Your task to perform on an android device: turn notification dots off Image 0: 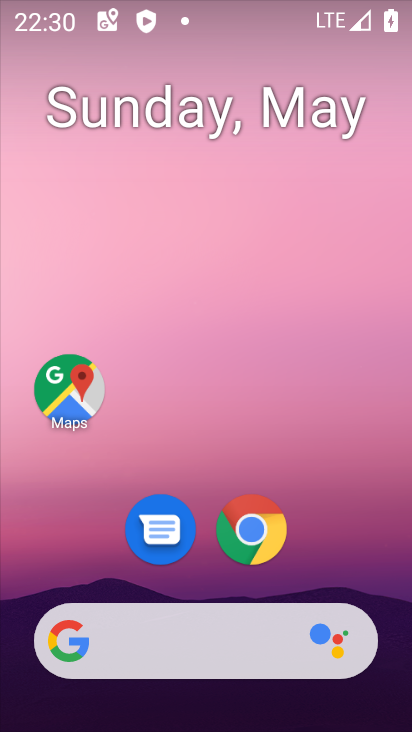
Step 0: click (339, 578)
Your task to perform on an android device: turn notification dots off Image 1: 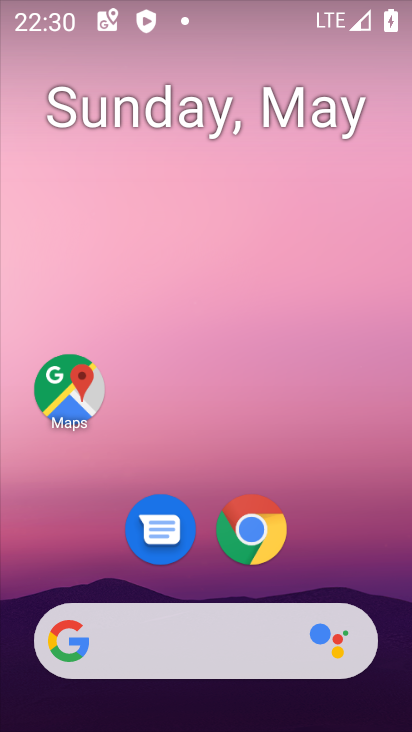
Step 1: drag from (339, 578) to (295, 164)
Your task to perform on an android device: turn notification dots off Image 2: 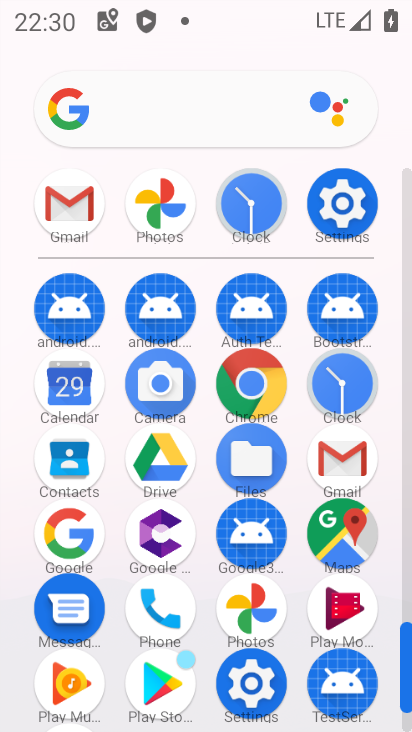
Step 2: click (336, 233)
Your task to perform on an android device: turn notification dots off Image 3: 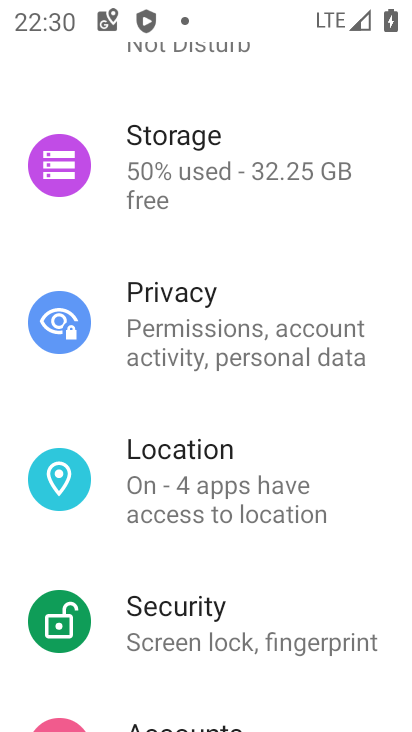
Step 3: drag from (209, 257) to (314, 726)
Your task to perform on an android device: turn notification dots off Image 4: 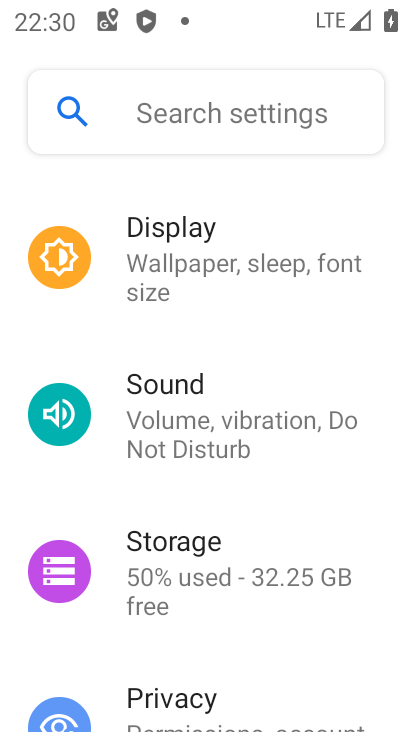
Step 4: drag from (219, 360) to (392, 652)
Your task to perform on an android device: turn notification dots off Image 5: 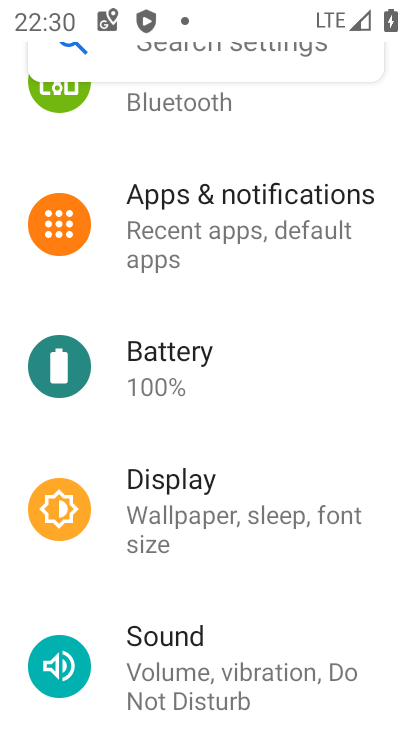
Step 5: click (261, 252)
Your task to perform on an android device: turn notification dots off Image 6: 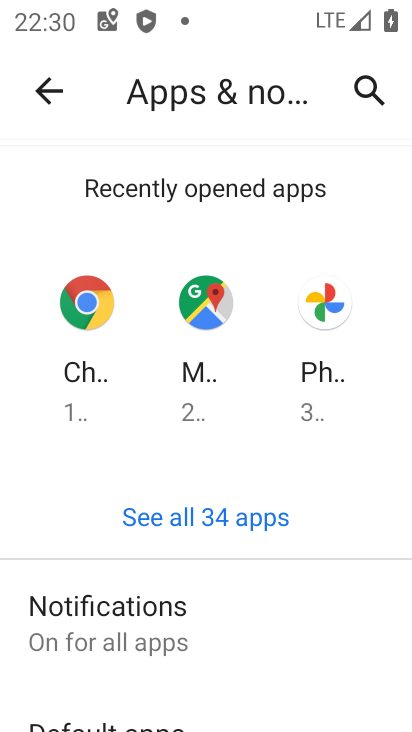
Step 6: task complete